Your task to perform on an android device: Look up the best rated gaming chair on Best Buy Image 0: 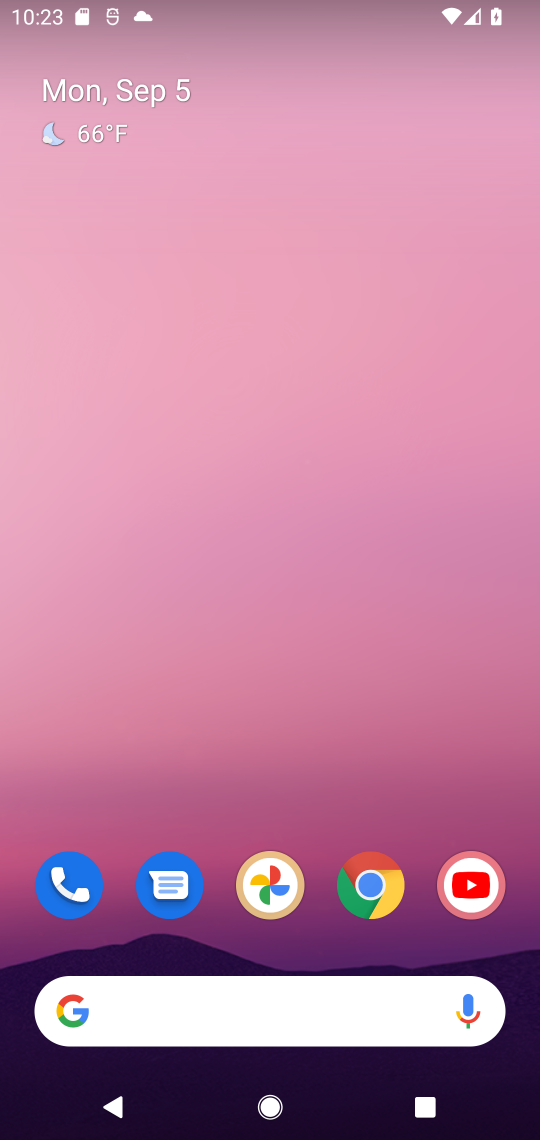
Step 0: drag from (276, 133) to (262, 62)
Your task to perform on an android device: Look up the best rated gaming chair on Best Buy Image 1: 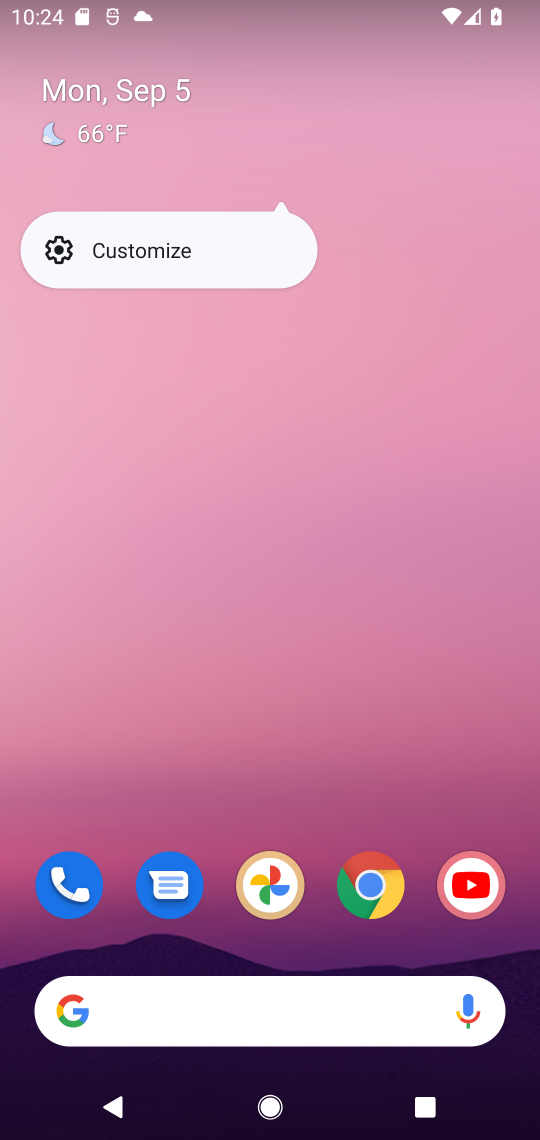
Step 1: drag from (327, 973) to (348, 158)
Your task to perform on an android device: Look up the best rated gaming chair on Best Buy Image 2: 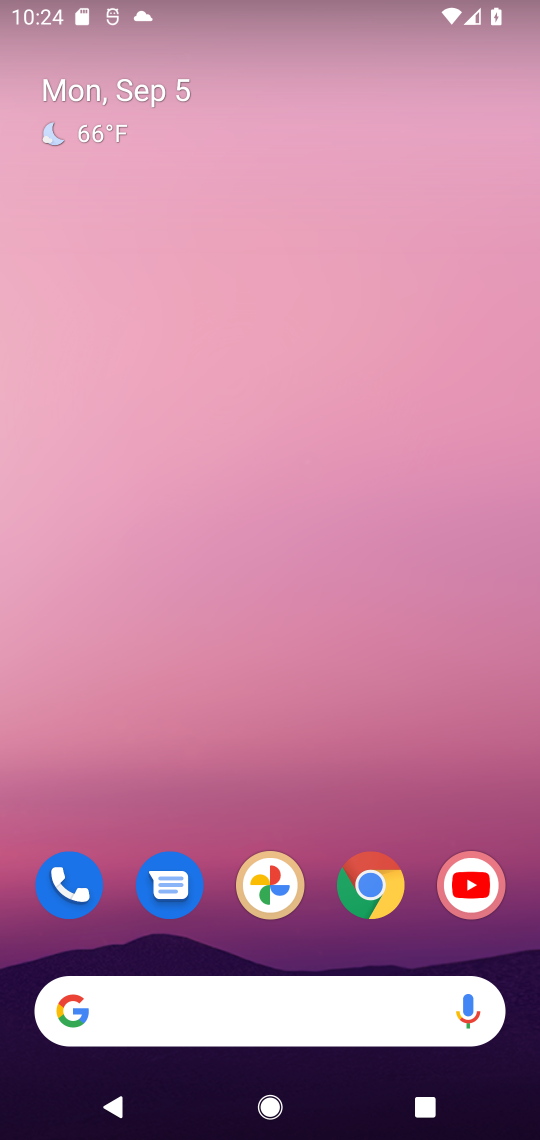
Step 2: drag from (308, 974) to (169, 22)
Your task to perform on an android device: Look up the best rated gaming chair on Best Buy Image 3: 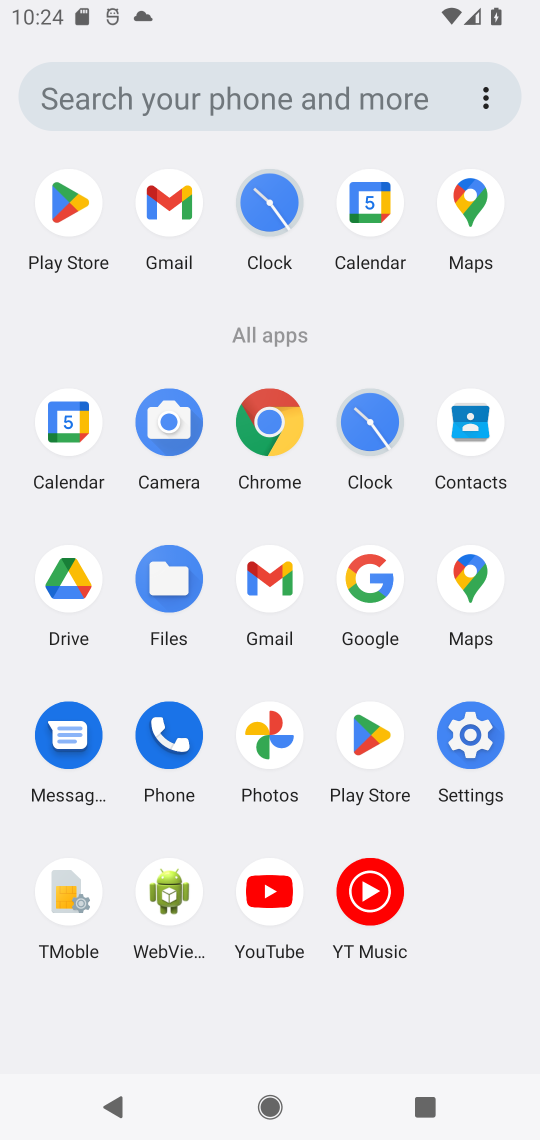
Step 3: click (368, 581)
Your task to perform on an android device: Look up the best rated gaming chair on Best Buy Image 4: 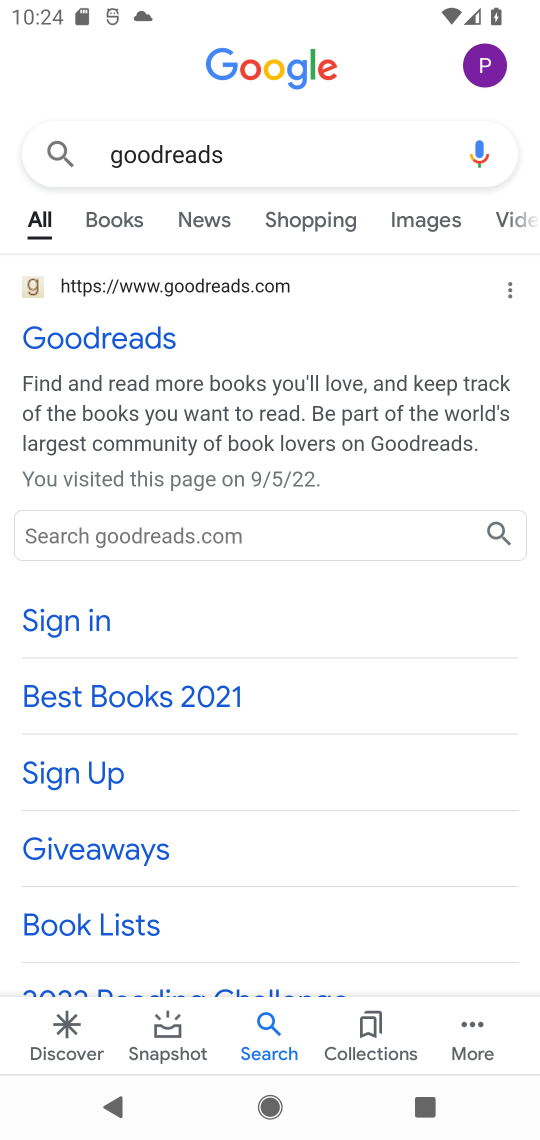
Step 4: click (302, 159)
Your task to perform on an android device: Look up the best rated gaming chair on Best Buy Image 5: 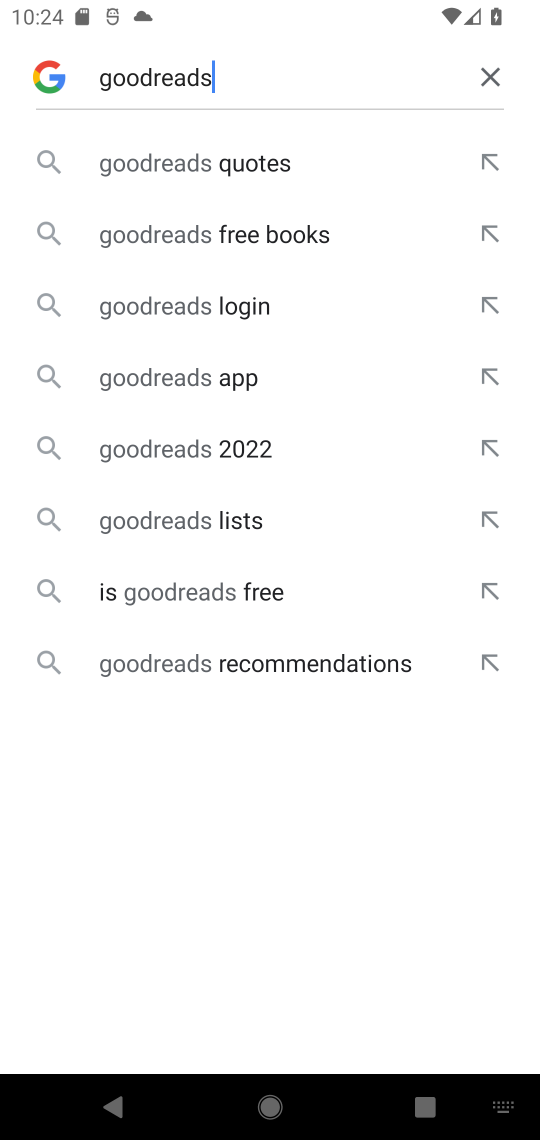
Step 5: click (483, 80)
Your task to perform on an android device: Look up the best rated gaming chair on Best Buy Image 6: 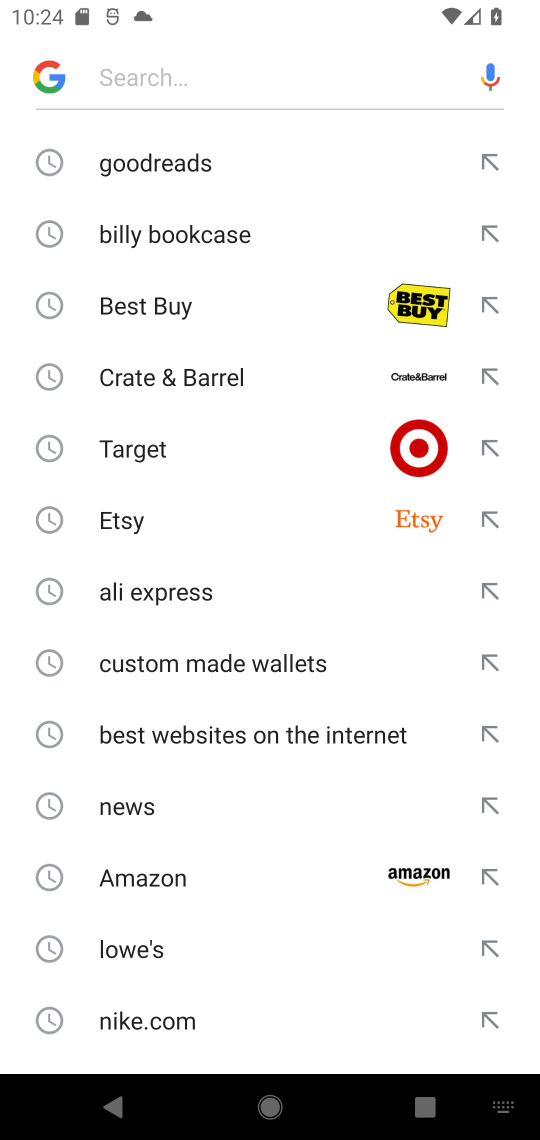
Step 6: type "Best Buy"
Your task to perform on an android device: Look up the best rated gaming chair on Best Buy Image 7: 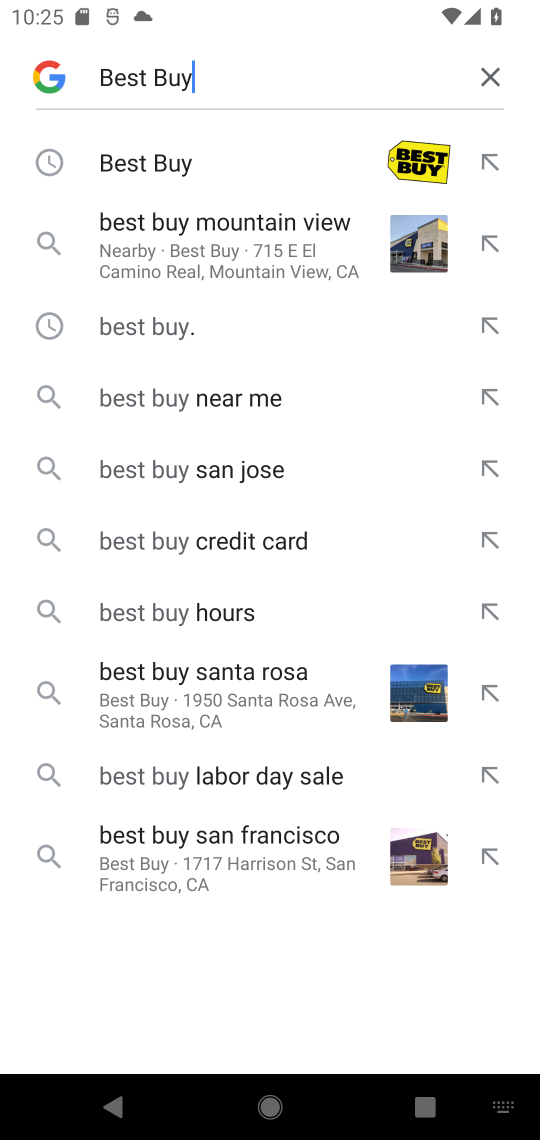
Step 7: click (121, 163)
Your task to perform on an android device: Look up the best rated gaming chair on Best Buy Image 8: 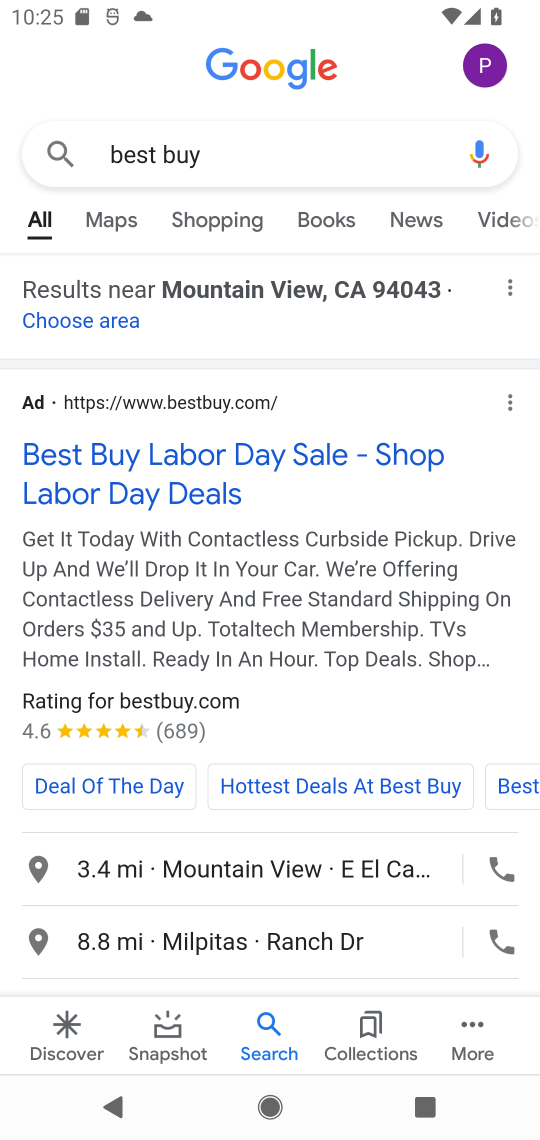
Step 8: click (140, 462)
Your task to perform on an android device: Look up the best rated gaming chair on Best Buy Image 9: 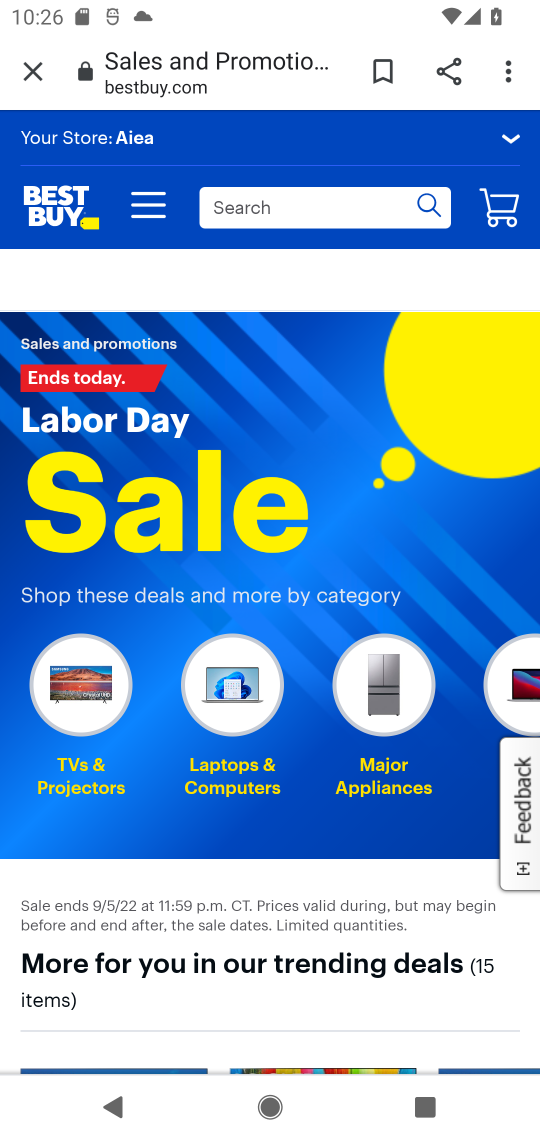
Step 9: click (307, 267)
Your task to perform on an android device: Look up the best rated gaming chair on Best Buy Image 10: 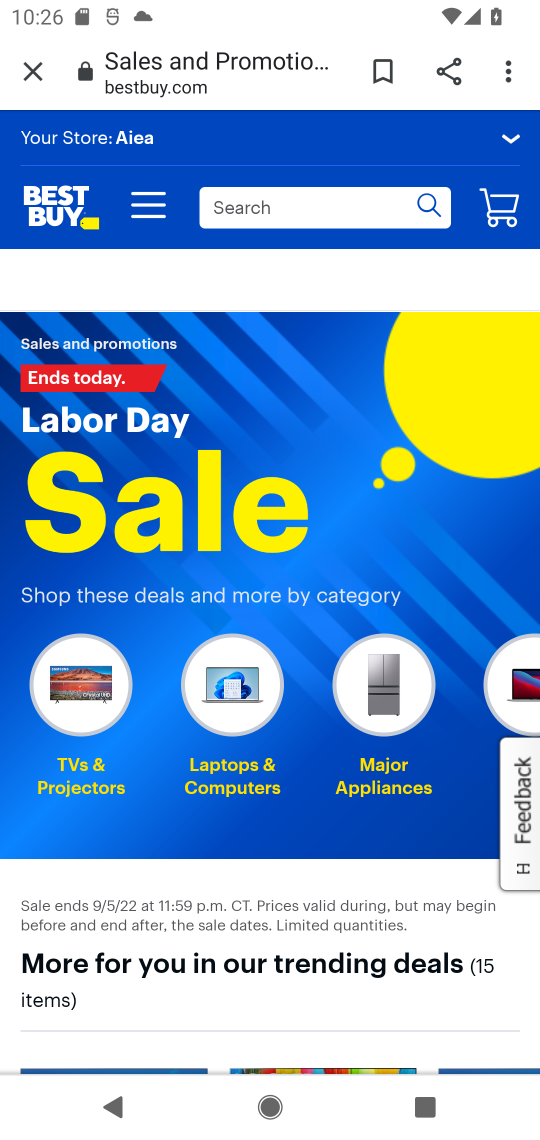
Step 10: click (283, 209)
Your task to perform on an android device: Look up the best rated gaming chair on Best Buy Image 11: 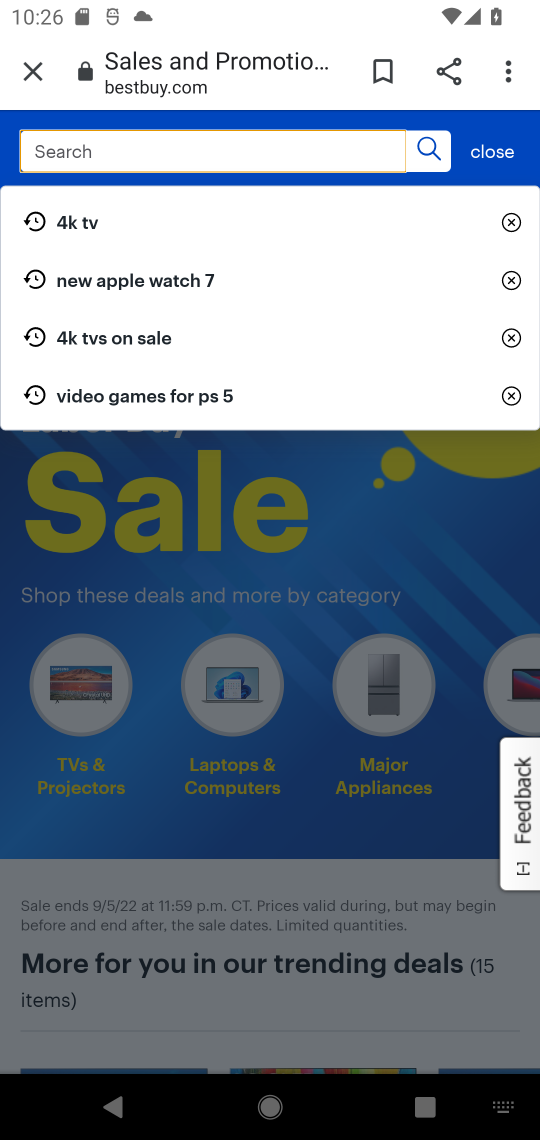
Step 11: type "gaming chair "
Your task to perform on an android device: Look up the best rated gaming chair on Best Buy Image 12: 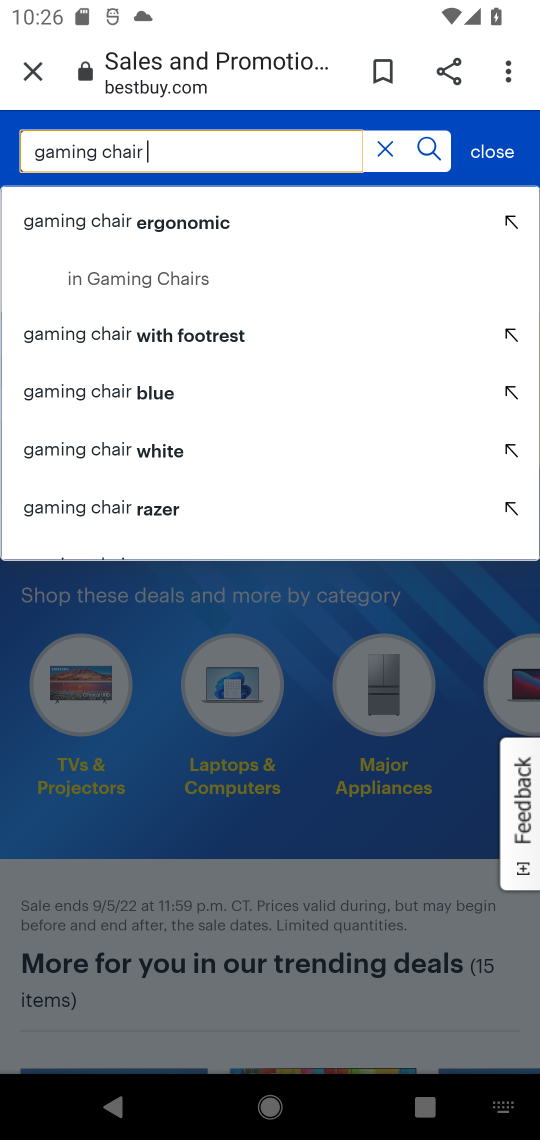
Step 12: click (162, 281)
Your task to perform on an android device: Look up the best rated gaming chair on Best Buy Image 13: 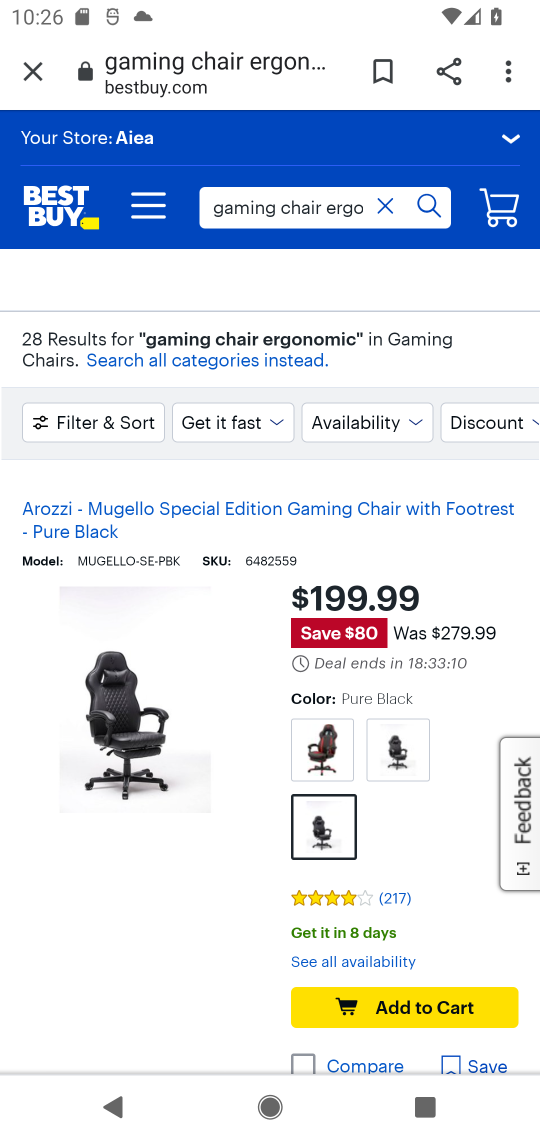
Step 13: task complete